Your task to perform on an android device: Go to calendar. Show me events next week Image 0: 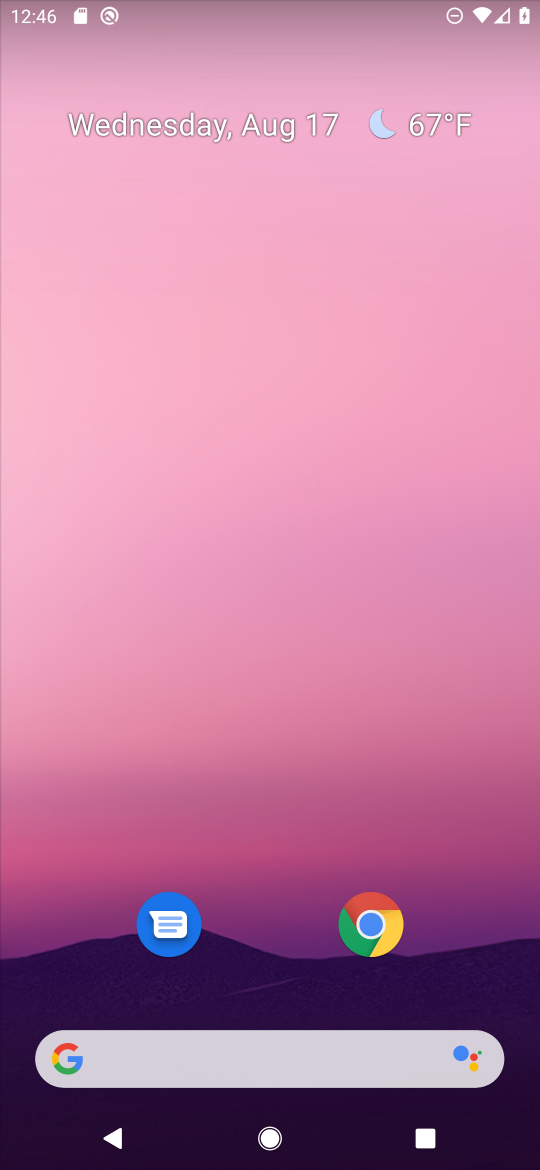
Step 0: click (115, 131)
Your task to perform on an android device: Go to calendar. Show me events next week Image 1: 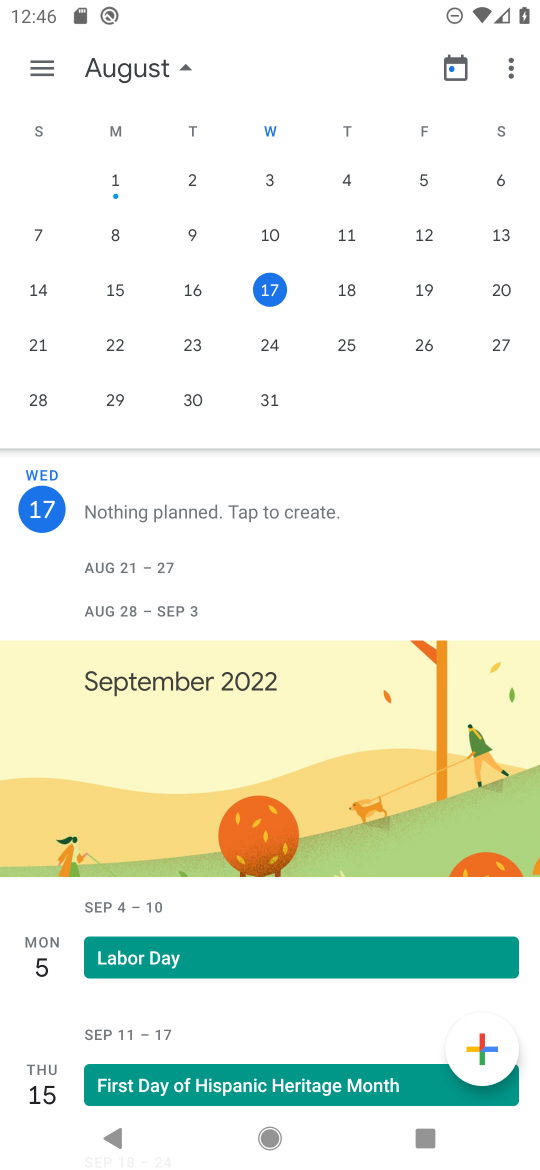
Step 1: click (48, 65)
Your task to perform on an android device: Go to calendar. Show me events next week Image 2: 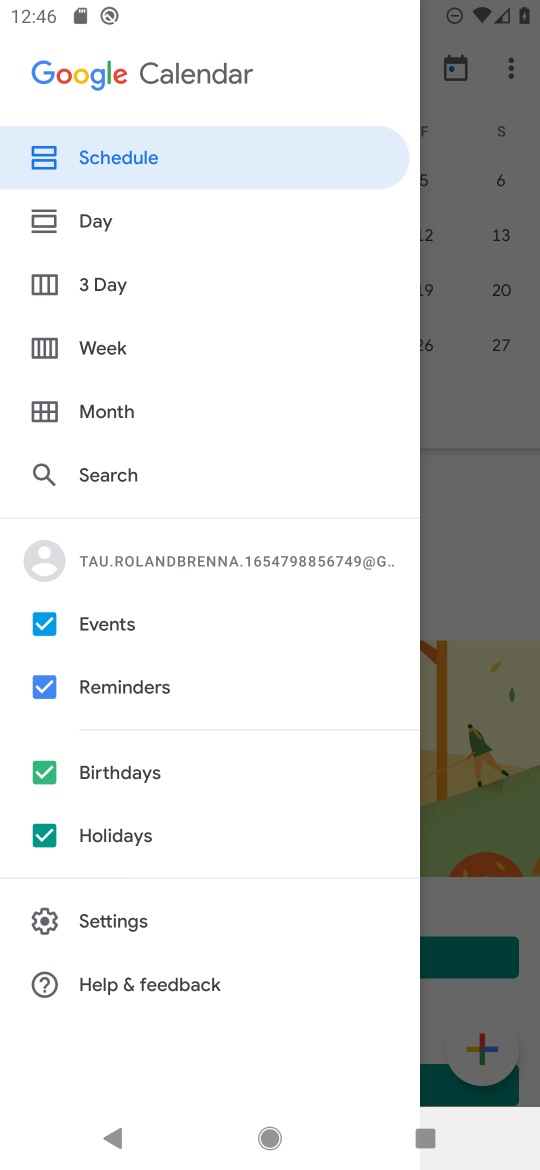
Step 2: click (44, 685)
Your task to perform on an android device: Go to calendar. Show me events next week Image 3: 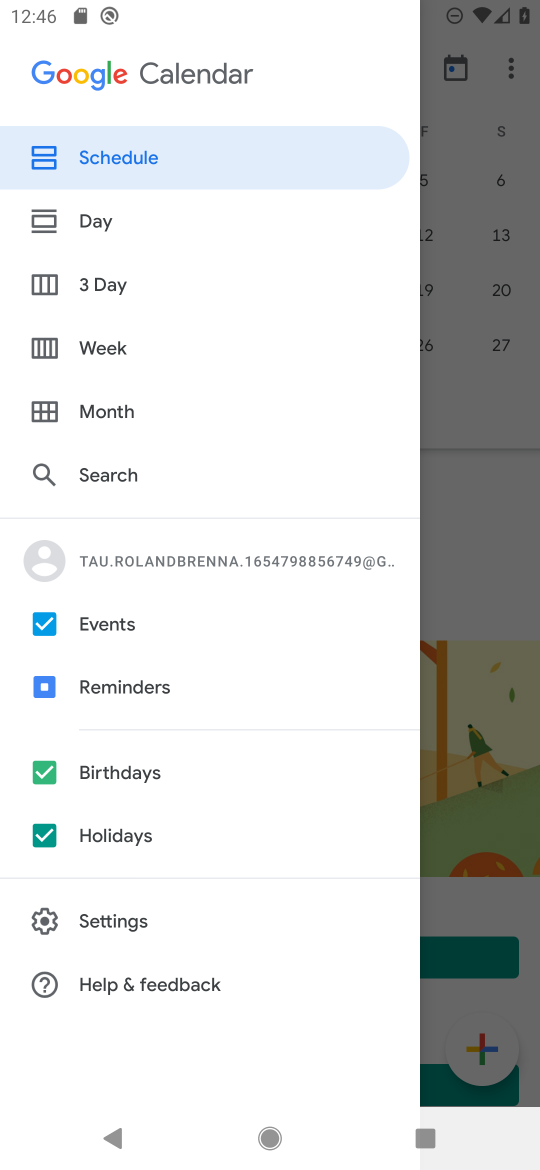
Step 3: click (48, 776)
Your task to perform on an android device: Go to calendar. Show me events next week Image 4: 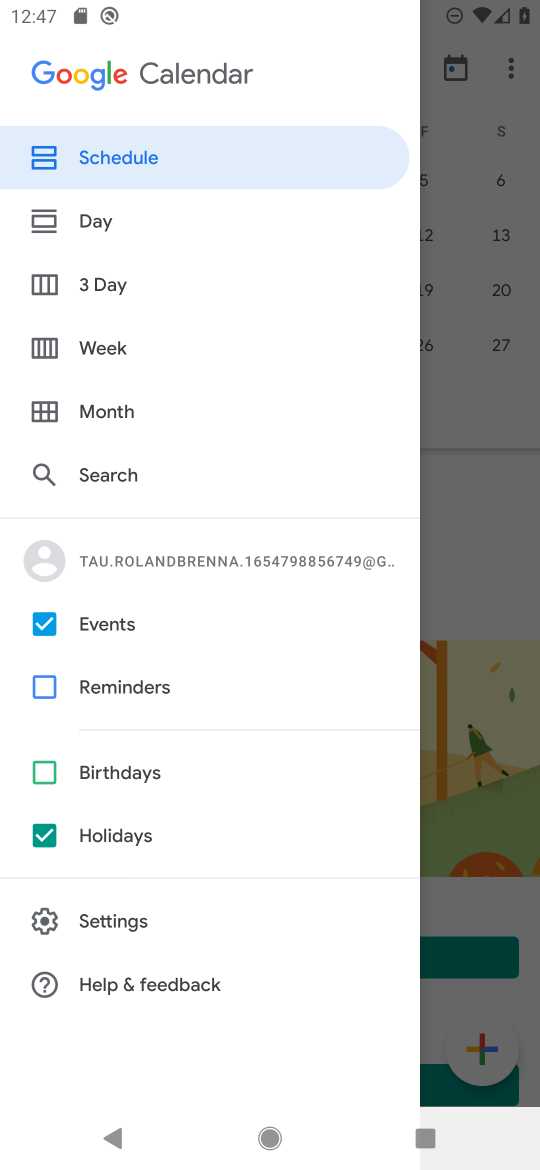
Step 4: click (41, 838)
Your task to perform on an android device: Go to calendar. Show me events next week Image 5: 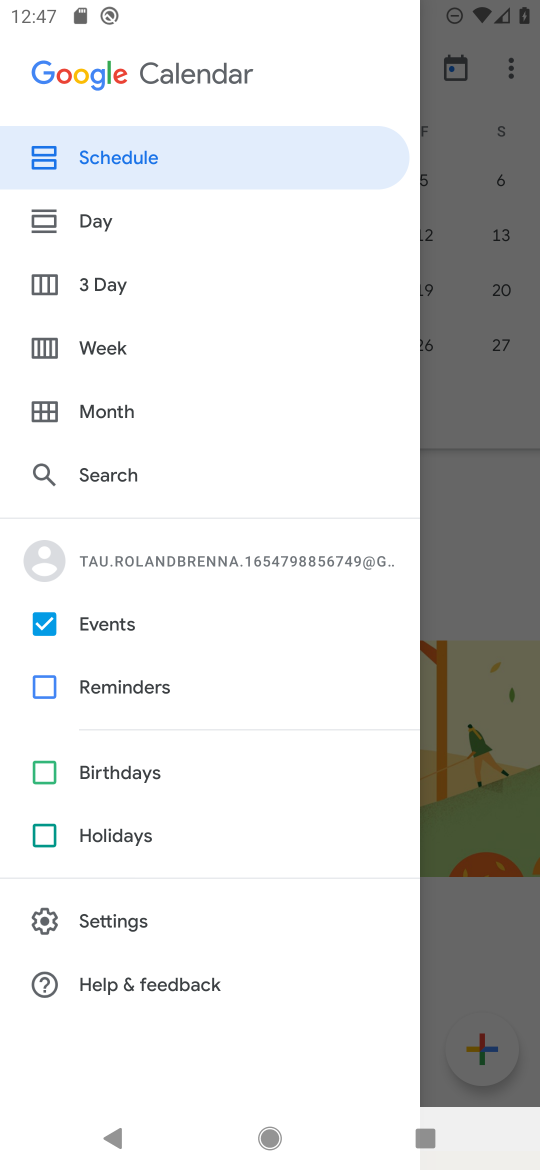
Step 5: click (98, 359)
Your task to perform on an android device: Go to calendar. Show me events next week Image 6: 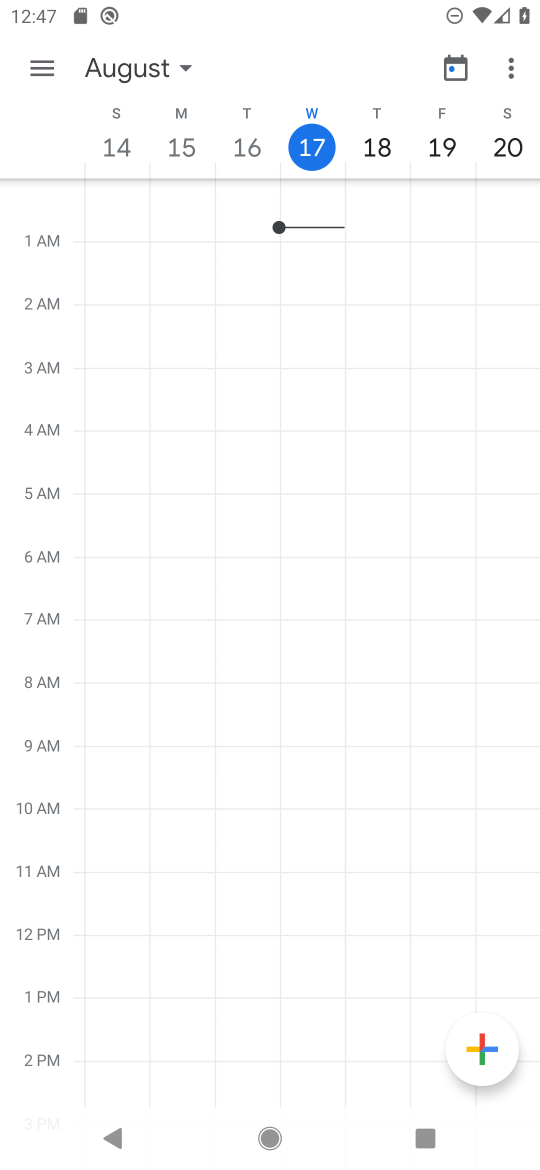
Step 6: click (140, 70)
Your task to perform on an android device: Go to calendar. Show me events next week Image 7: 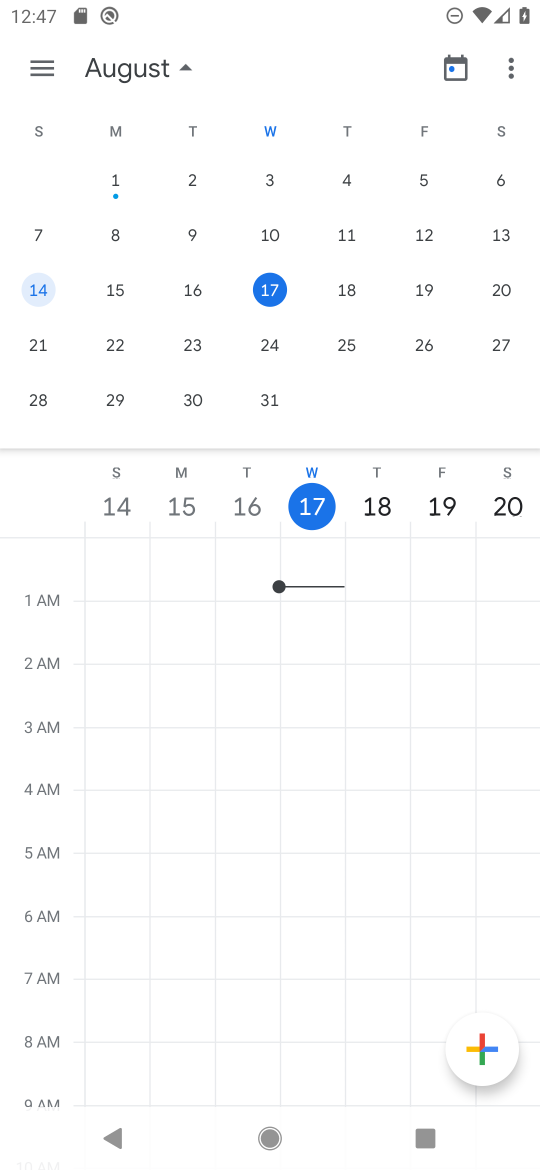
Step 7: click (265, 349)
Your task to perform on an android device: Go to calendar. Show me events next week Image 8: 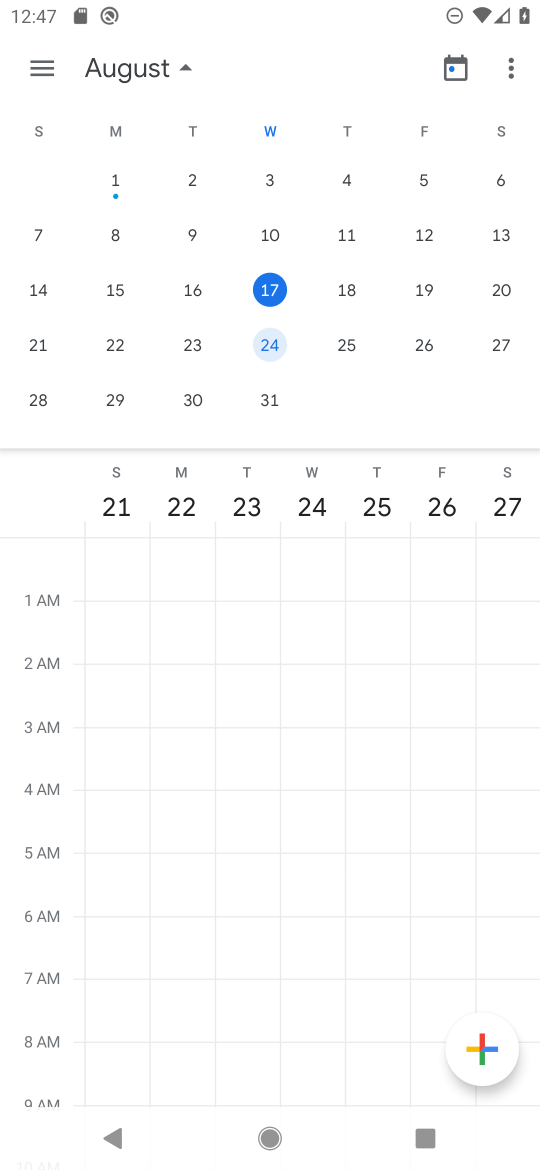
Step 8: task complete